Your task to perform on an android device: Open Youtube and go to "Your channel" Image 0: 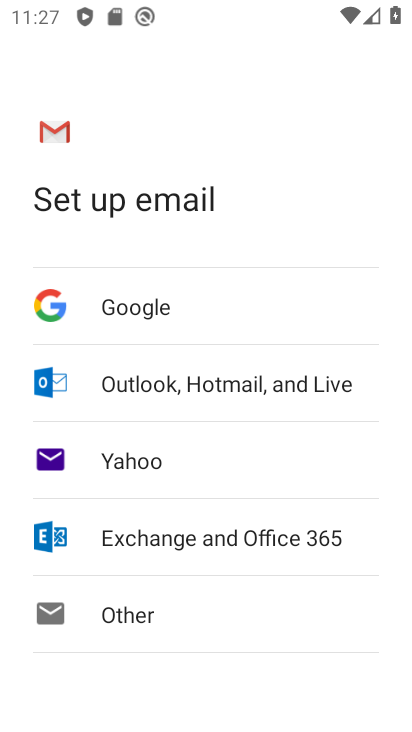
Step 0: press home button
Your task to perform on an android device: Open Youtube and go to "Your channel" Image 1: 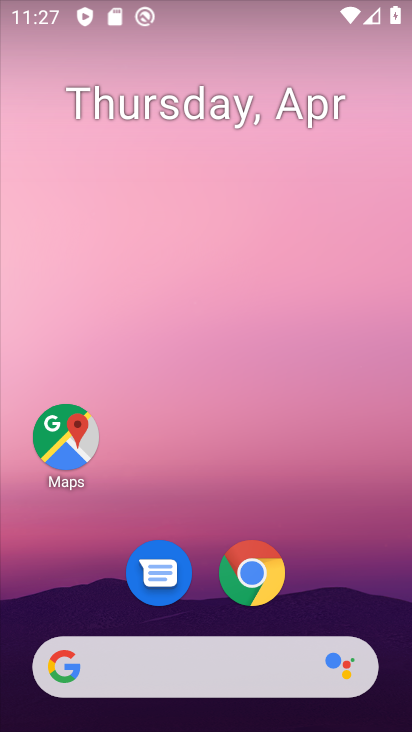
Step 1: drag from (310, 535) to (279, 62)
Your task to perform on an android device: Open Youtube and go to "Your channel" Image 2: 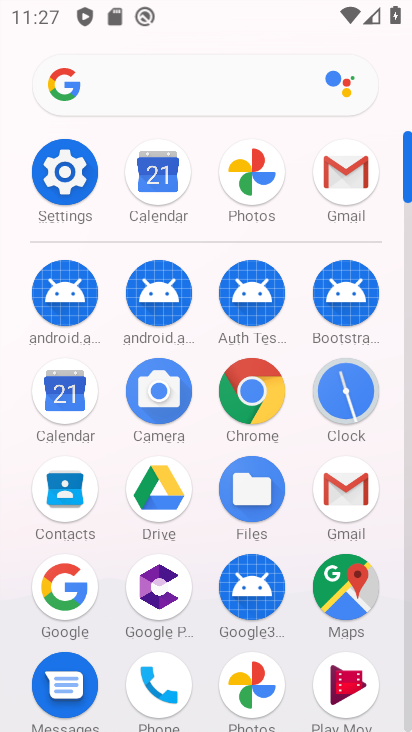
Step 2: drag from (301, 625) to (305, 299)
Your task to perform on an android device: Open Youtube and go to "Your channel" Image 3: 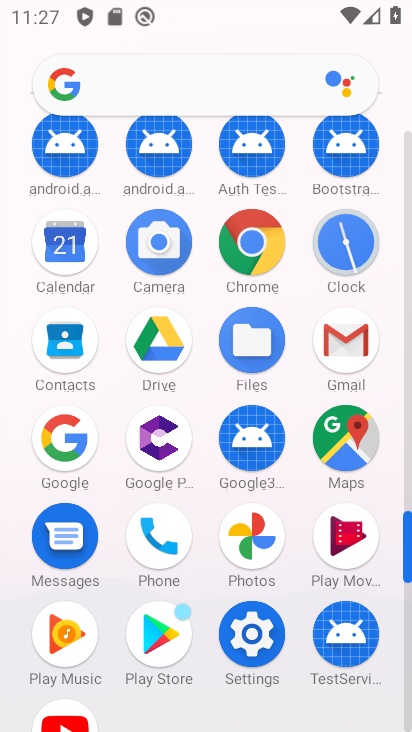
Step 3: click (63, 717)
Your task to perform on an android device: Open Youtube and go to "Your channel" Image 4: 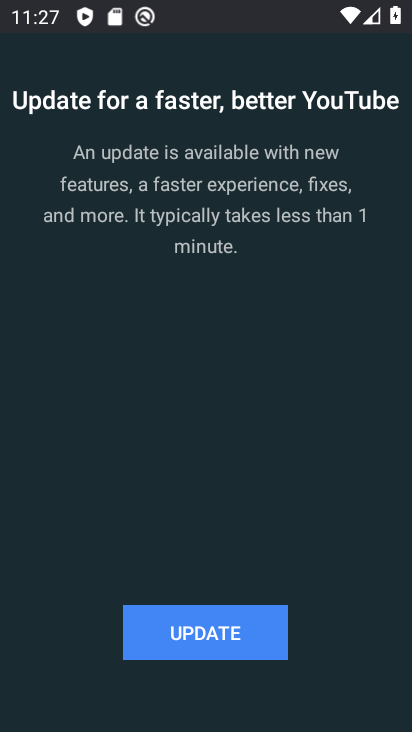
Step 4: click (200, 638)
Your task to perform on an android device: Open Youtube and go to "Your channel" Image 5: 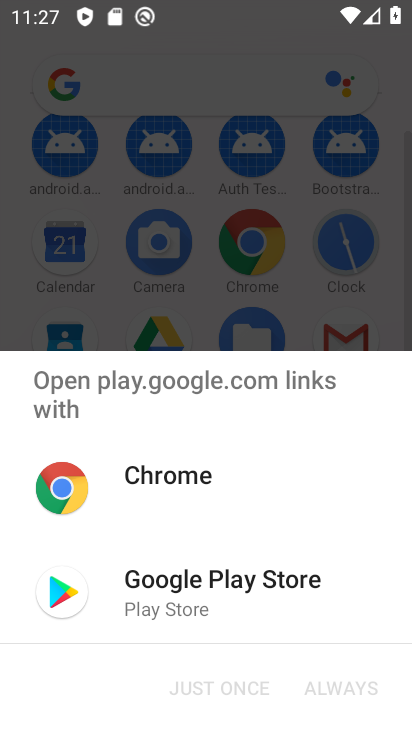
Step 5: click (200, 604)
Your task to perform on an android device: Open Youtube and go to "Your channel" Image 6: 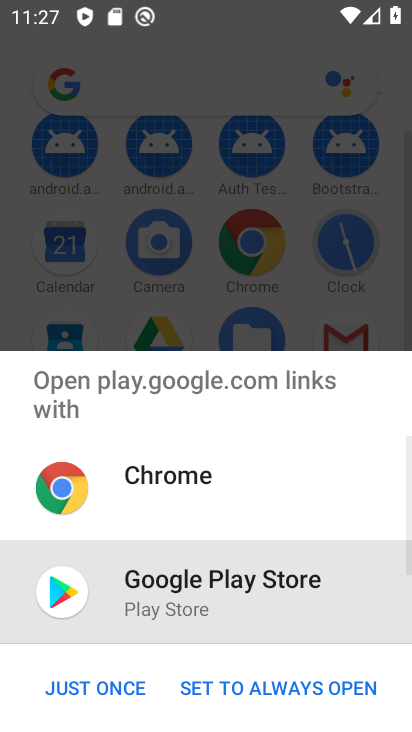
Step 6: click (106, 691)
Your task to perform on an android device: Open Youtube and go to "Your channel" Image 7: 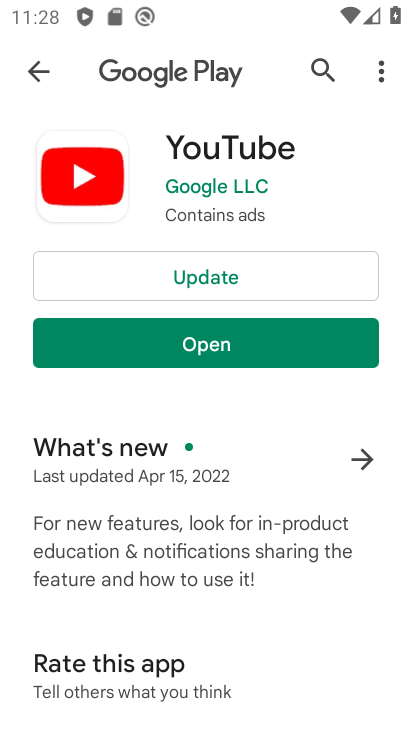
Step 7: click (200, 279)
Your task to perform on an android device: Open Youtube and go to "Your channel" Image 8: 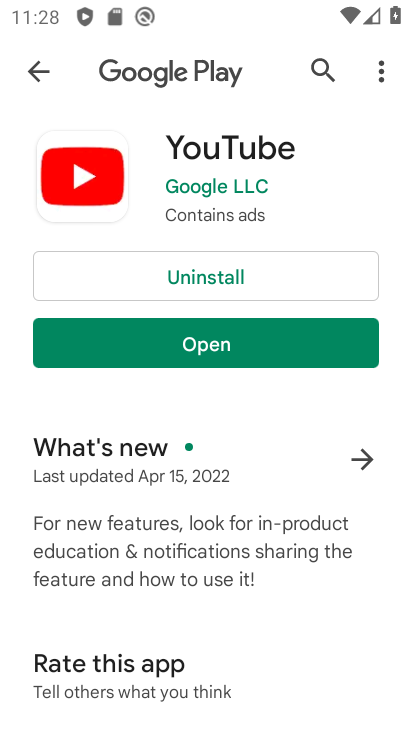
Step 8: click (220, 342)
Your task to perform on an android device: Open Youtube and go to "Your channel" Image 9: 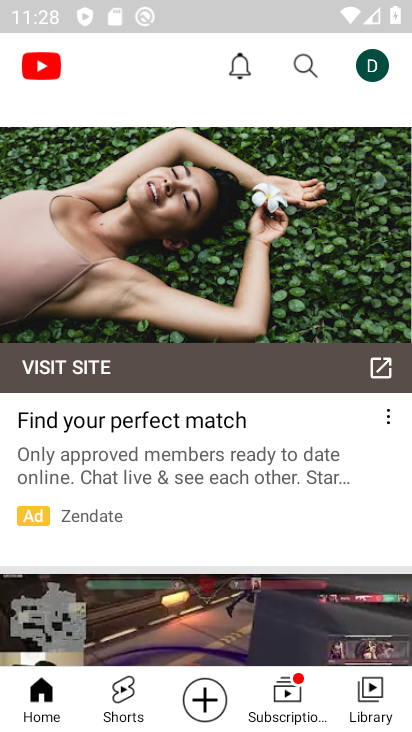
Step 9: click (377, 70)
Your task to perform on an android device: Open Youtube and go to "Your channel" Image 10: 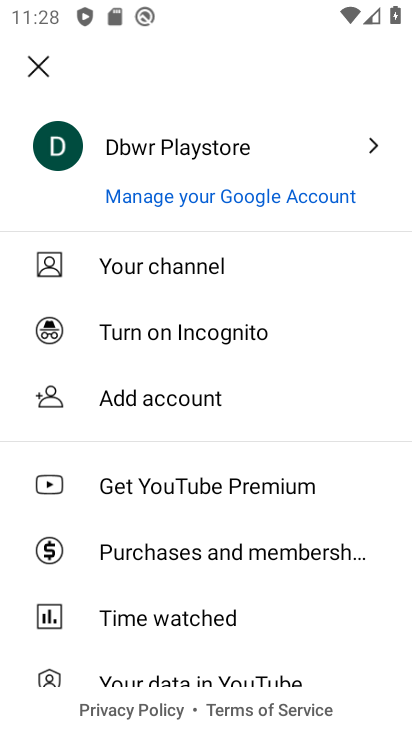
Step 10: click (207, 264)
Your task to perform on an android device: Open Youtube and go to "Your channel" Image 11: 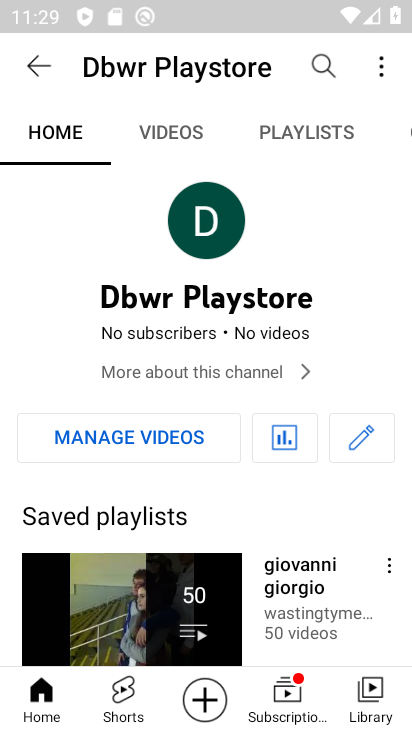
Step 11: task complete